Your task to perform on an android device: toggle sleep mode Image 0: 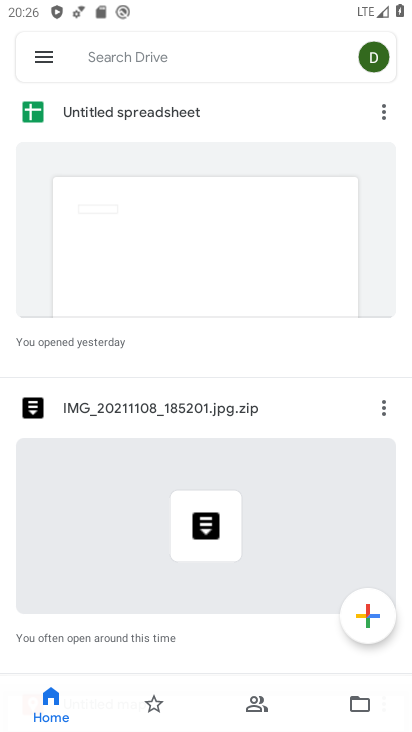
Step 0: press home button
Your task to perform on an android device: toggle sleep mode Image 1: 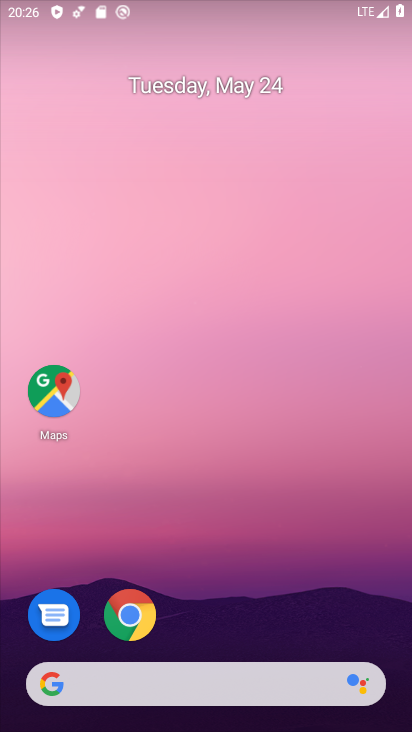
Step 1: drag from (290, 571) to (290, 186)
Your task to perform on an android device: toggle sleep mode Image 2: 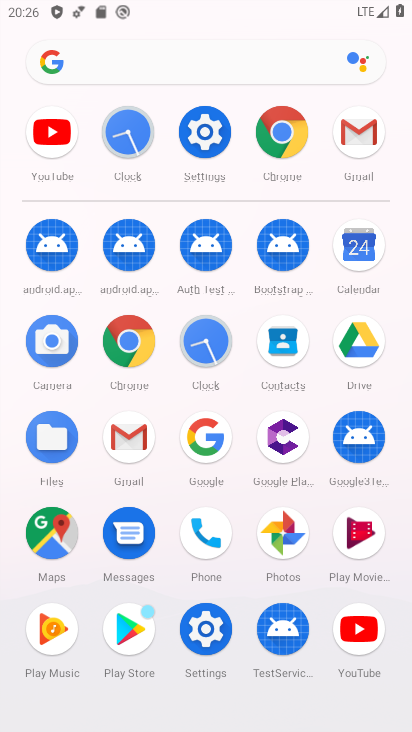
Step 2: click (195, 131)
Your task to perform on an android device: toggle sleep mode Image 3: 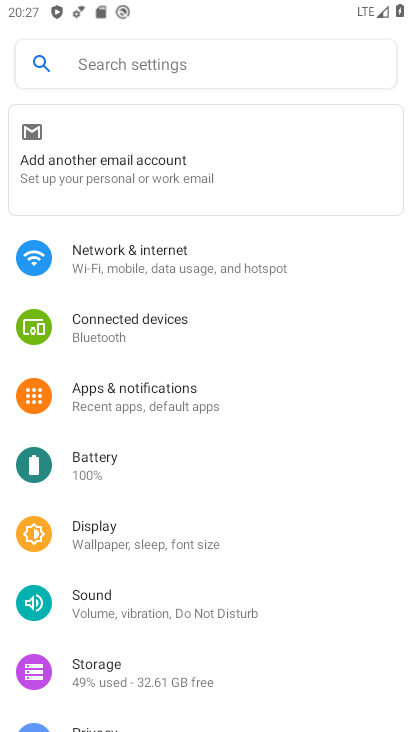
Step 3: task complete